Your task to perform on an android device: delete a single message in the gmail app Image 0: 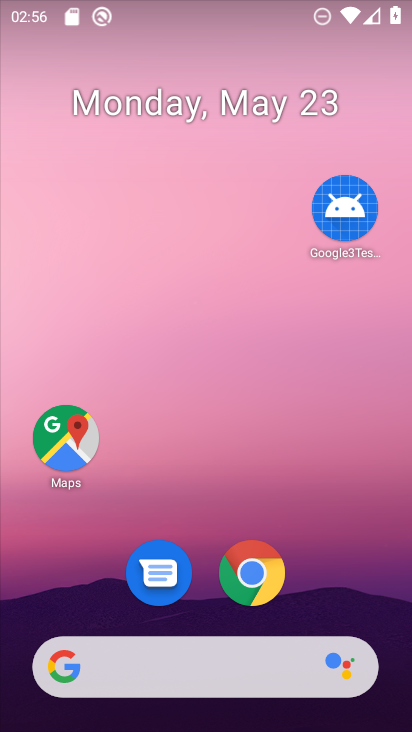
Step 0: drag from (286, 462) to (260, 7)
Your task to perform on an android device: delete a single message in the gmail app Image 1: 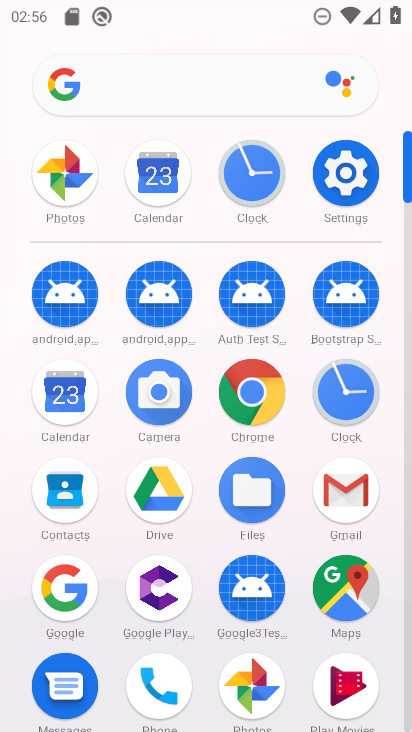
Step 1: click (336, 487)
Your task to perform on an android device: delete a single message in the gmail app Image 2: 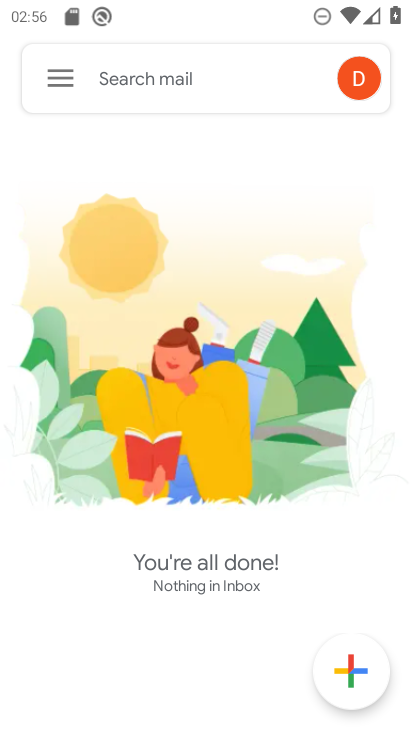
Step 2: click (66, 72)
Your task to perform on an android device: delete a single message in the gmail app Image 3: 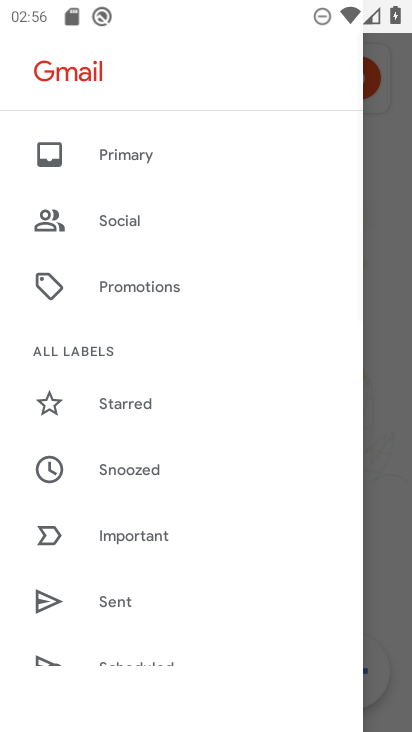
Step 3: drag from (150, 552) to (239, 45)
Your task to perform on an android device: delete a single message in the gmail app Image 4: 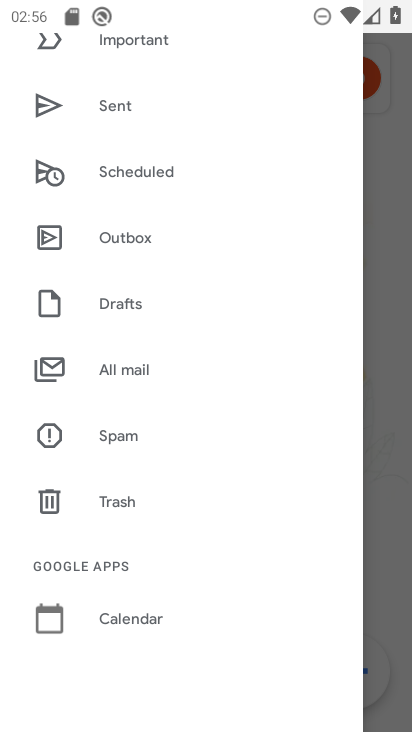
Step 4: click (138, 374)
Your task to perform on an android device: delete a single message in the gmail app Image 5: 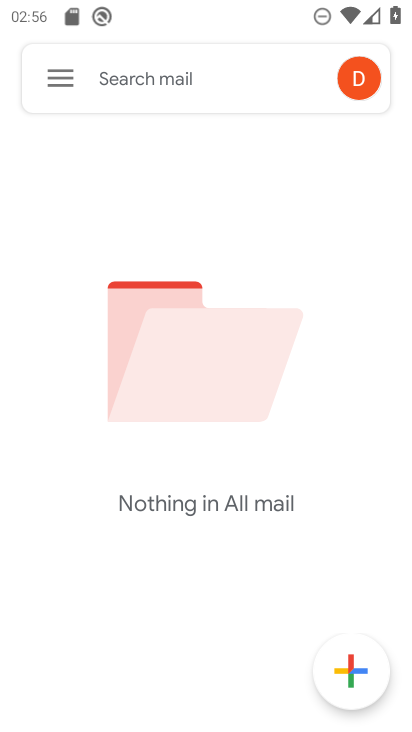
Step 5: task complete